Your task to perform on an android device: Check the news Image 0: 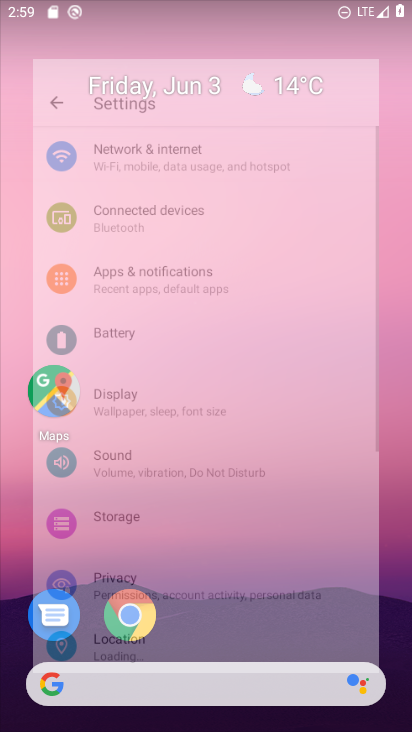
Step 0: drag from (159, 565) to (193, 61)
Your task to perform on an android device: Check the news Image 1: 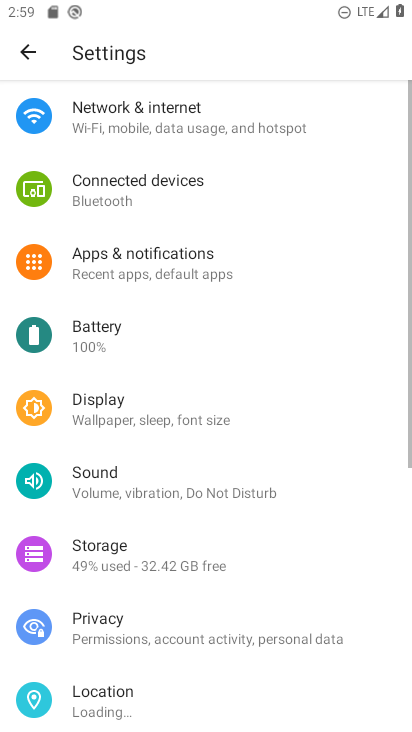
Step 1: press home button
Your task to perform on an android device: Check the news Image 2: 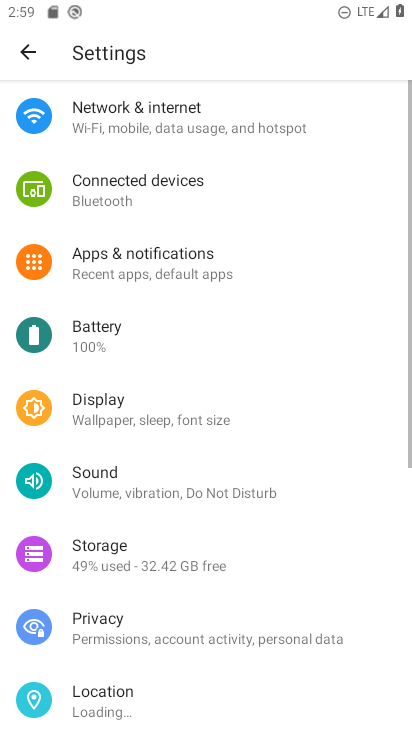
Step 2: drag from (212, 444) to (249, 103)
Your task to perform on an android device: Check the news Image 3: 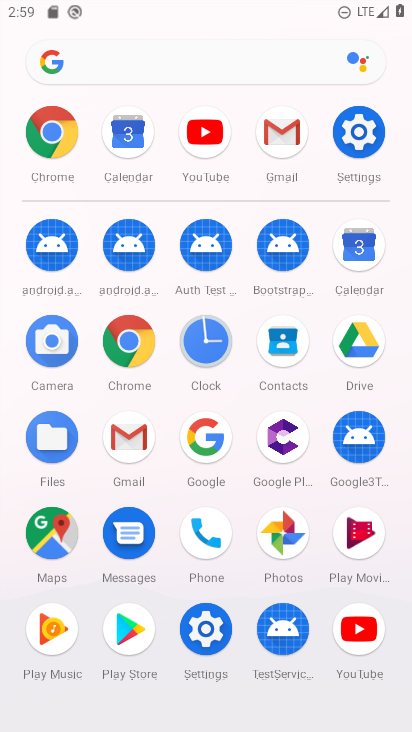
Step 3: click (186, 65)
Your task to perform on an android device: Check the news Image 4: 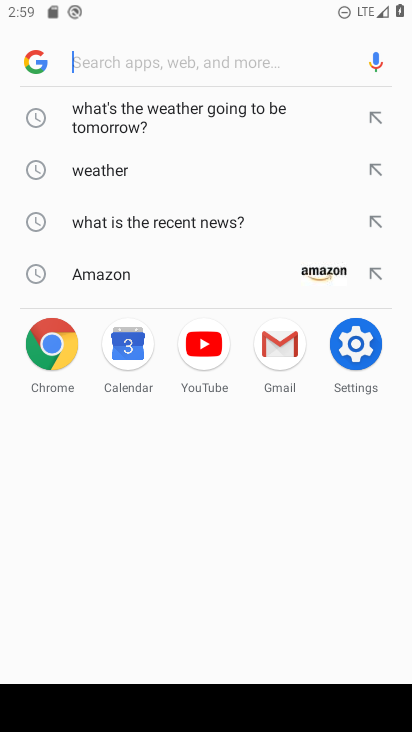
Step 4: click (106, 57)
Your task to perform on an android device: Check the news Image 5: 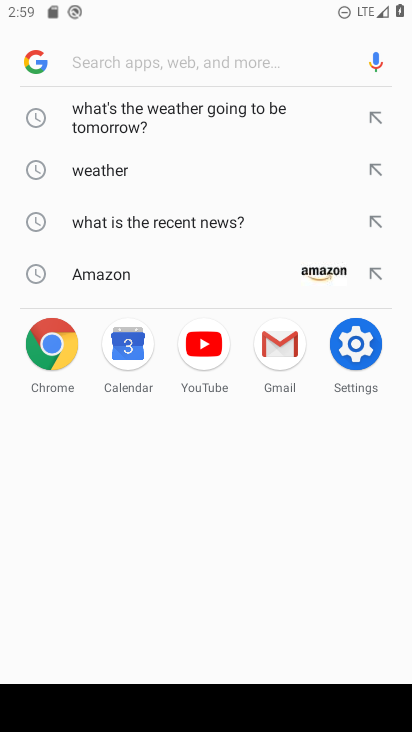
Step 5: click (106, 57)
Your task to perform on an android device: Check the news Image 6: 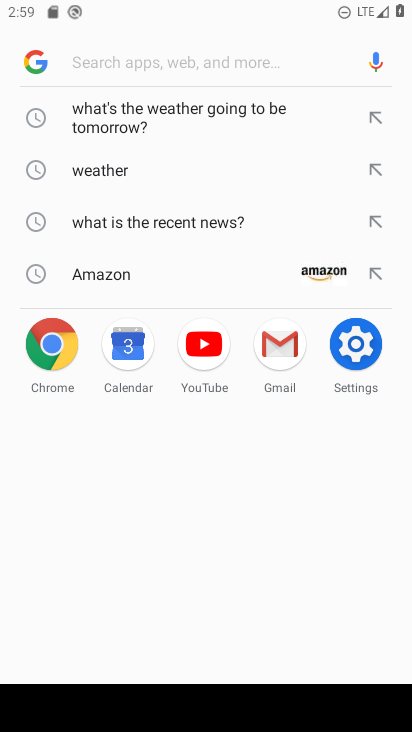
Step 6: click (115, 62)
Your task to perform on an android device: Check the news Image 7: 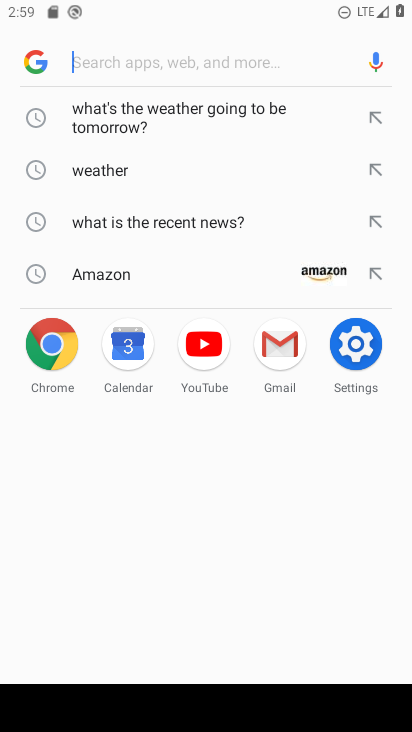
Step 7: type "news"
Your task to perform on an android device: Check the news Image 8: 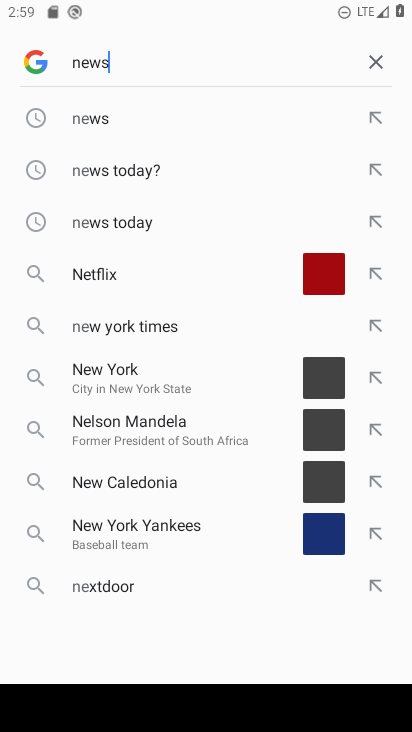
Step 8: type ""
Your task to perform on an android device: Check the news Image 9: 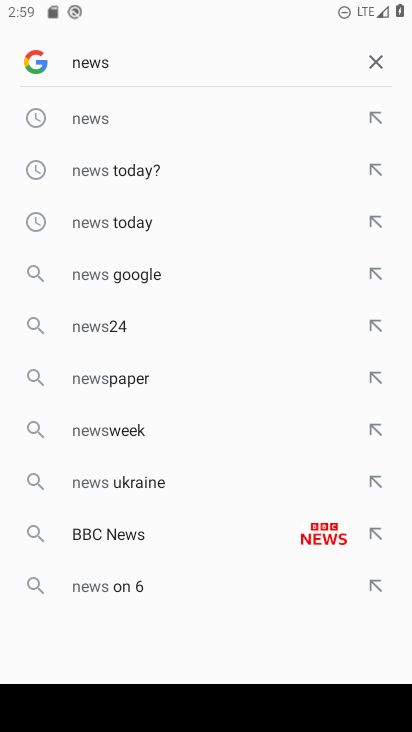
Step 9: click (117, 122)
Your task to perform on an android device: Check the news Image 10: 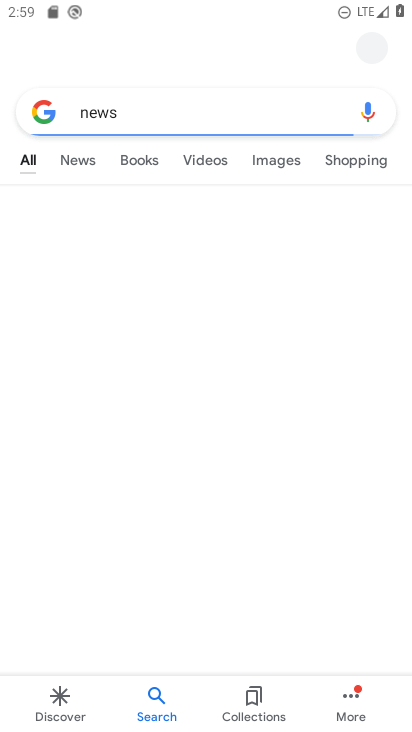
Step 10: task complete